Your task to perform on an android device: change notification settings in the gmail app Image 0: 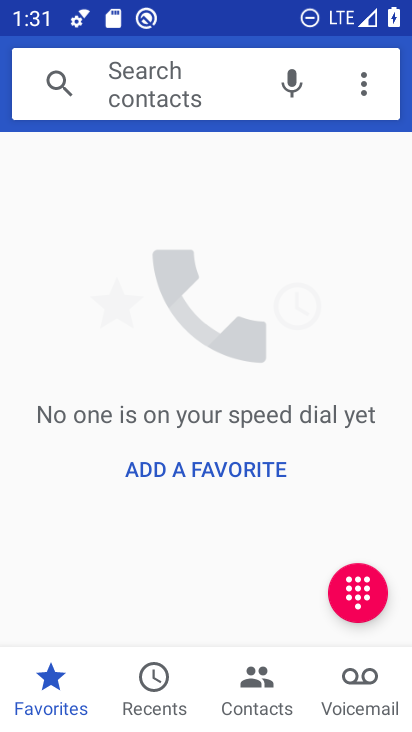
Step 0: press home button
Your task to perform on an android device: change notification settings in the gmail app Image 1: 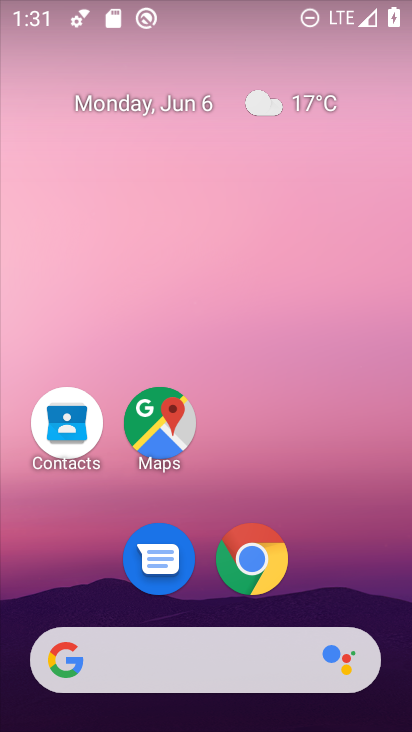
Step 1: drag from (188, 639) to (231, 17)
Your task to perform on an android device: change notification settings in the gmail app Image 2: 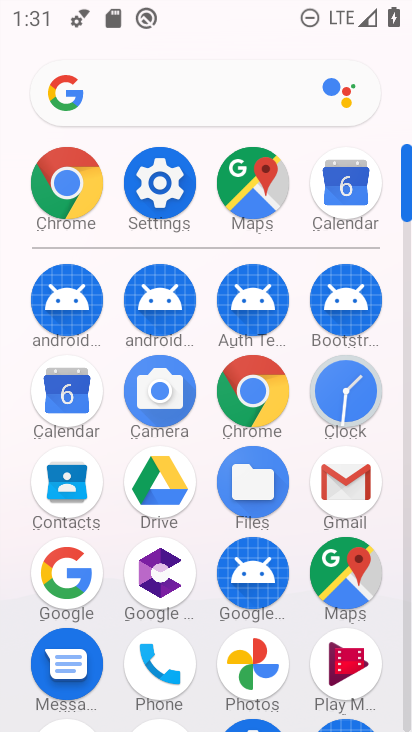
Step 2: click (339, 481)
Your task to perform on an android device: change notification settings in the gmail app Image 3: 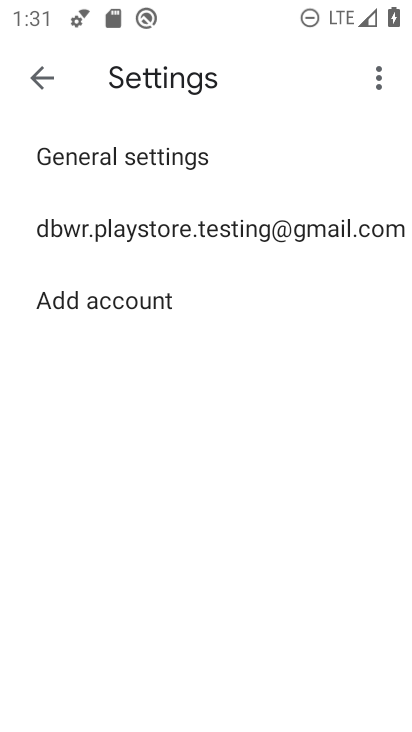
Step 3: click (230, 151)
Your task to perform on an android device: change notification settings in the gmail app Image 4: 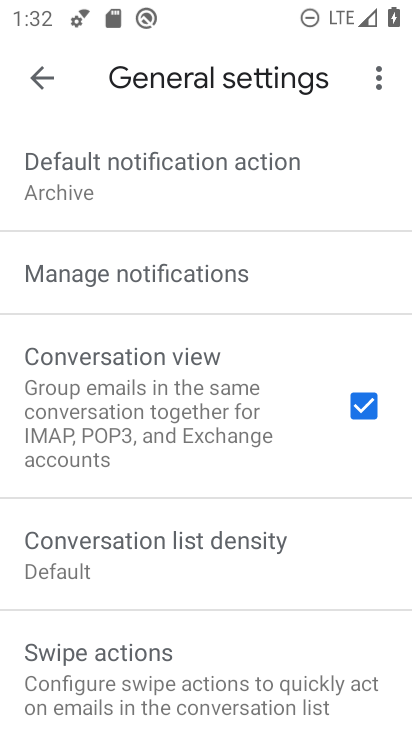
Step 4: click (175, 276)
Your task to perform on an android device: change notification settings in the gmail app Image 5: 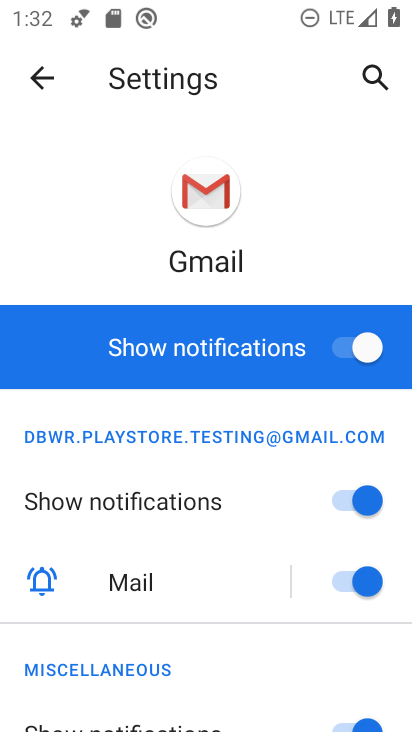
Step 5: click (192, 355)
Your task to perform on an android device: change notification settings in the gmail app Image 6: 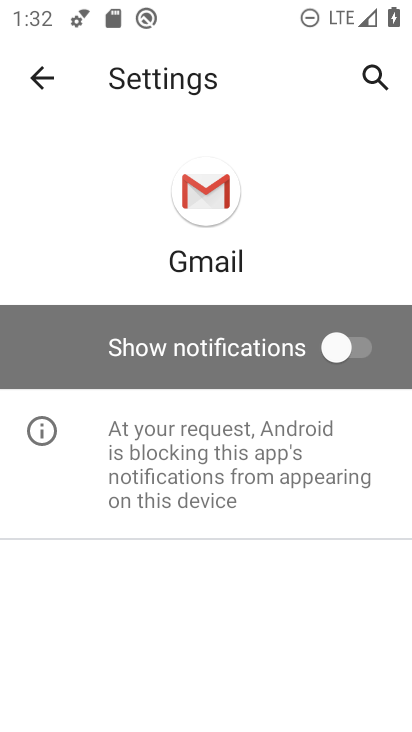
Step 6: task complete